Your task to perform on an android device: What's a good restaurant in San Francisco? Image 0: 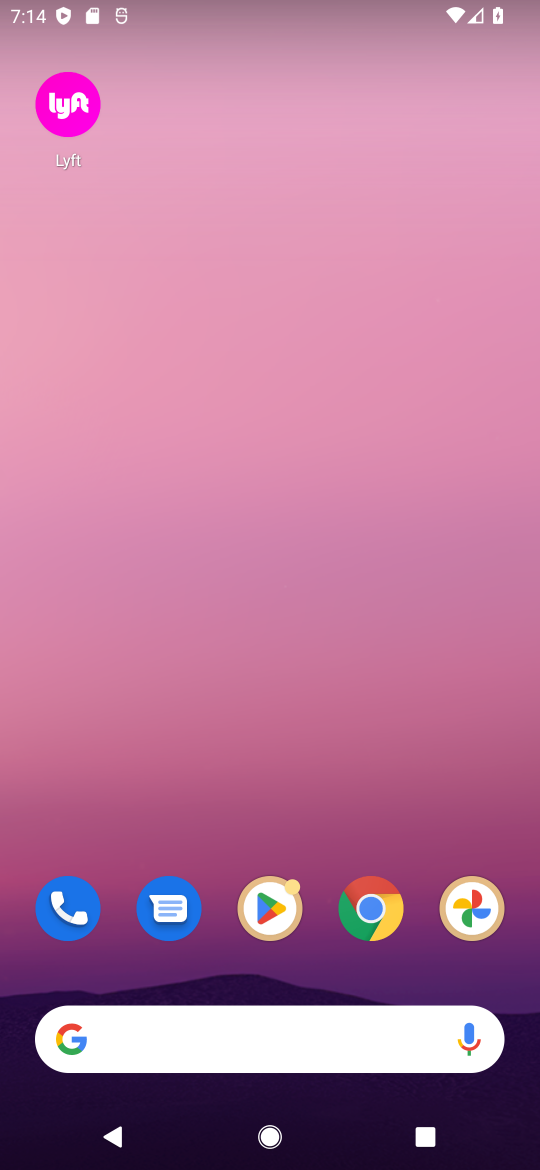
Step 0: click (424, 697)
Your task to perform on an android device: What's a good restaurant in San Francisco? Image 1: 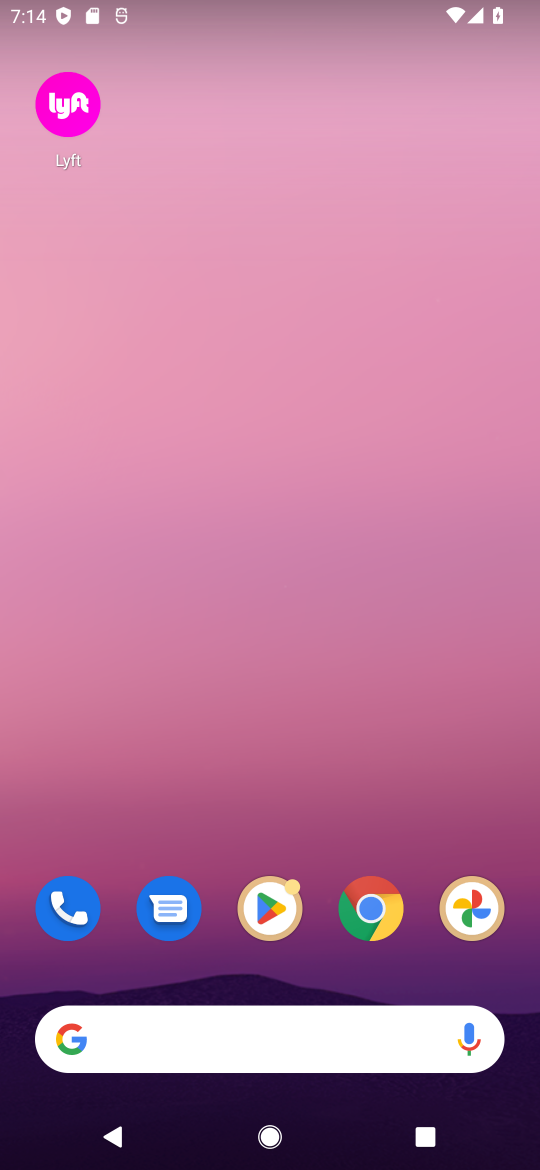
Step 1: click (314, 1043)
Your task to perform on an android device: What's a good restaurant in San Francisco? Image 2: 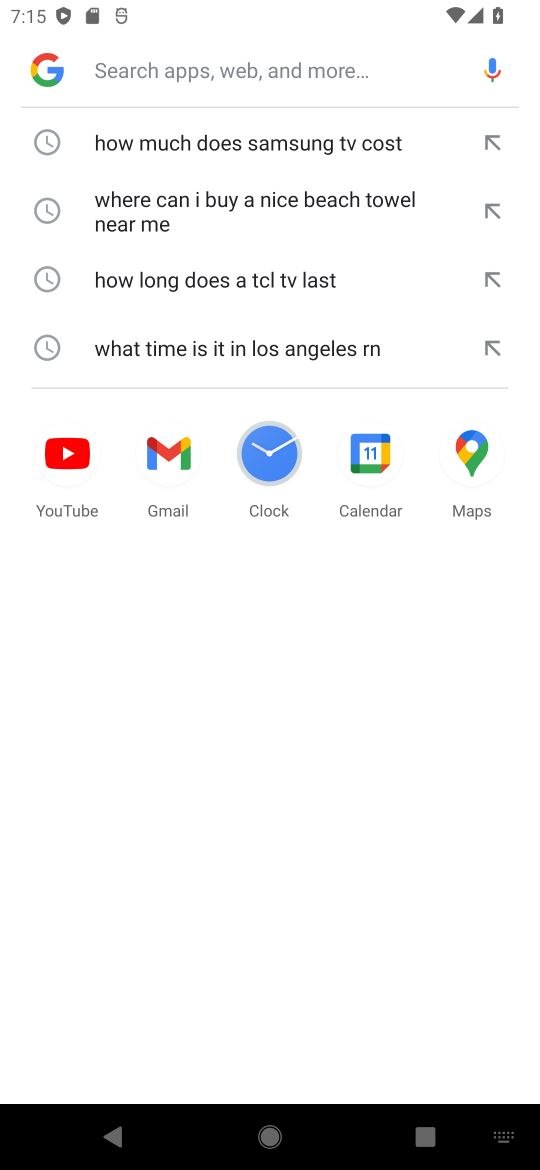
Step 2: type "What's a good restaurant in San Francisco?"
Your task to perform on an android device: What's a good restaurant in San Francisco? Image 3: 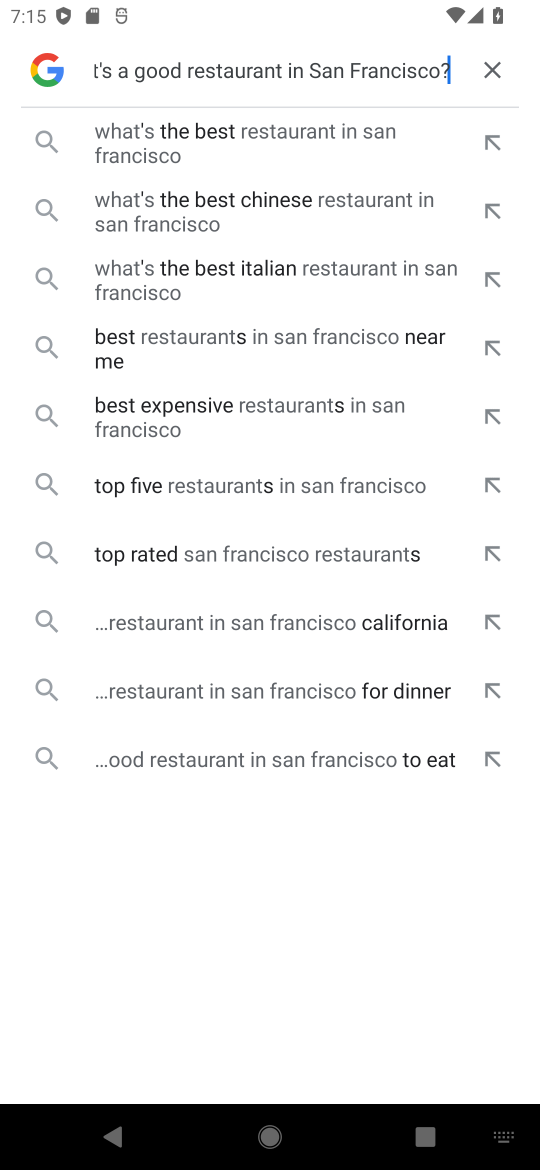
Step 3: click (244, 122)
Your task to perform on an android device: What's a good restaurant in San Francisco? Image 4: 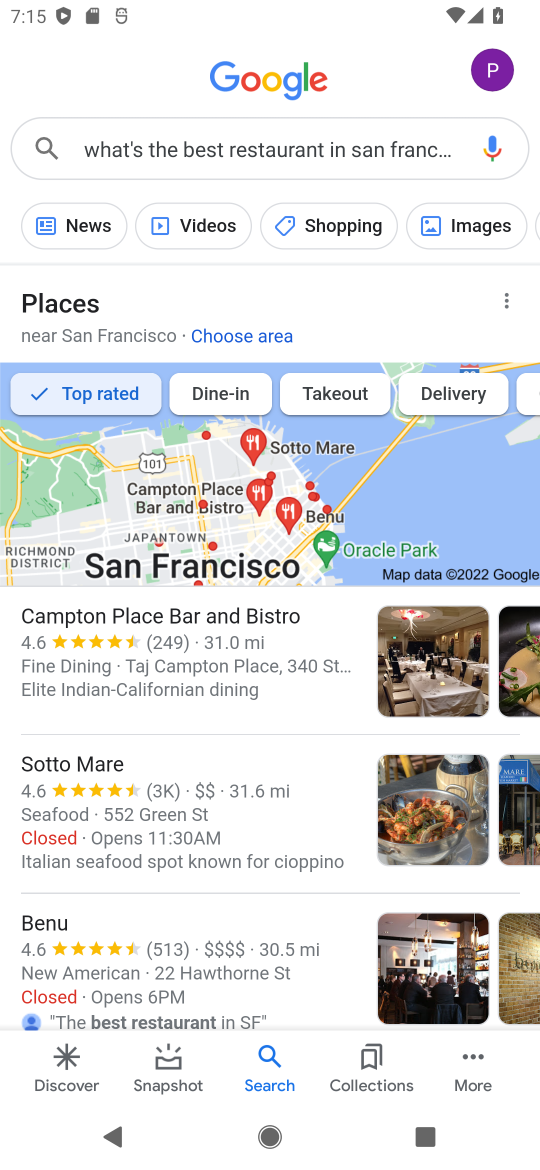
Step 4: task complete